Your task to perform on an android device: stop showing notifications on the lock screen Image 0: 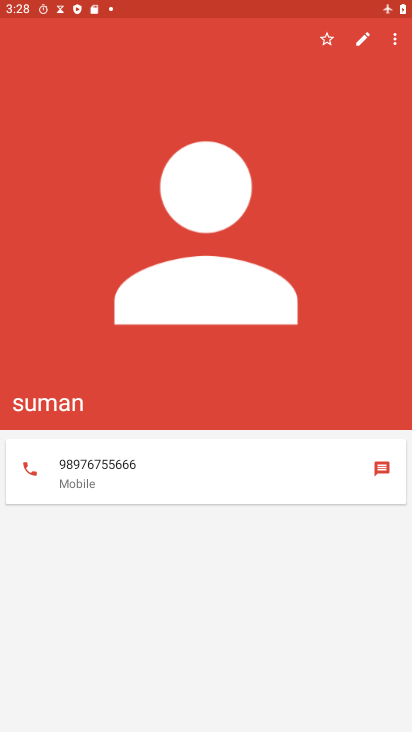
Step 0: press home button
Your task to perform on an android device: stop showing notifications on the lock screen Image 1: 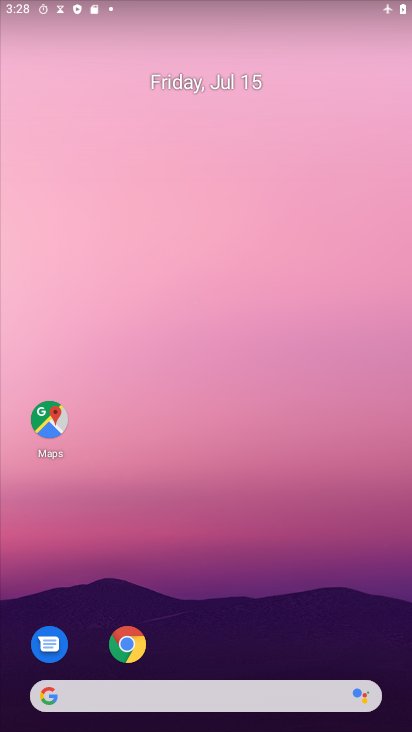
Step 1: drag from (84, 557) to (135, 3)
Your task to perform on an android device: stop showing notifications on the lock screen Image 2: 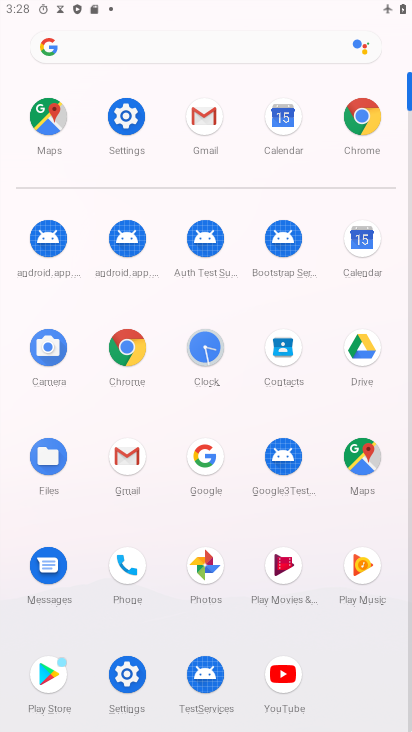
Step 2: click (122, 113)
Your task to perform on an android device: stop showing notifications on the lock screen Image 3: 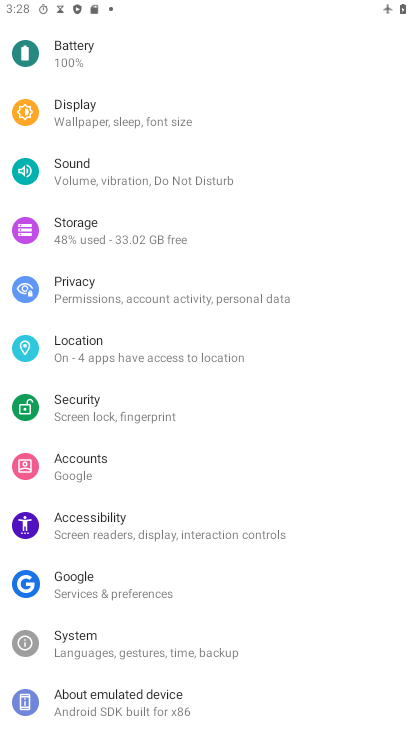
Step 3: drag from (121, 170) to (137, 608)
Your task to perform on an android device: stop showing notifications on the lock screen Image 4: 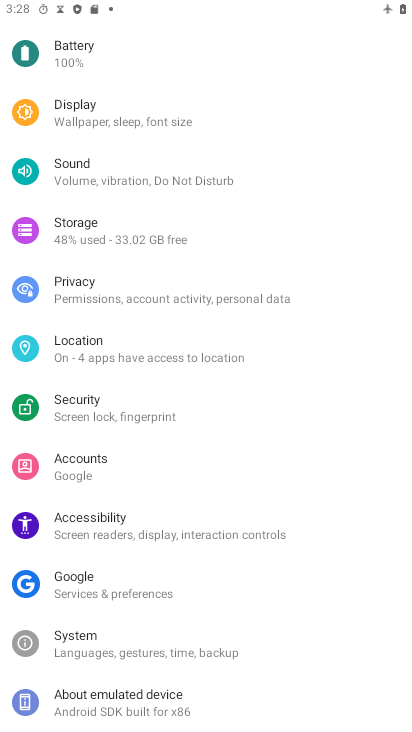
Step 4: drag from (115, 154) to (188, 654)
Your task to perform on an android device: stop showing notifications on the lock screen Image 5: 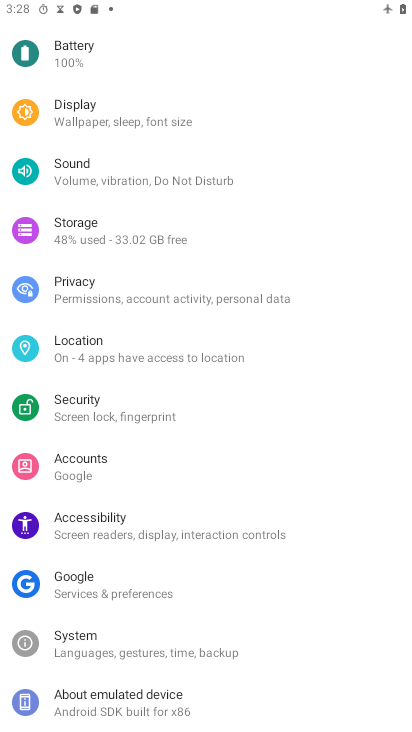
Step 5: drag from (139, 147) to (157, 654)
Your task to perform on an android device: stop showing notifications on the lock screen Image 6: 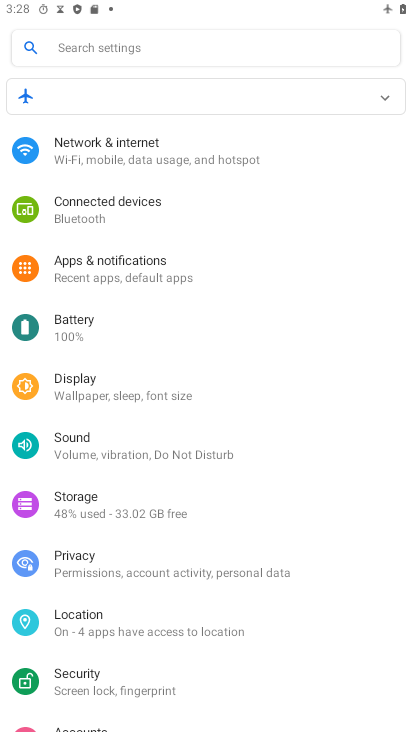
Step 6: click (125, 268)
Your task to perform on an android device: stop showing notifications on the lock screen Image 7: 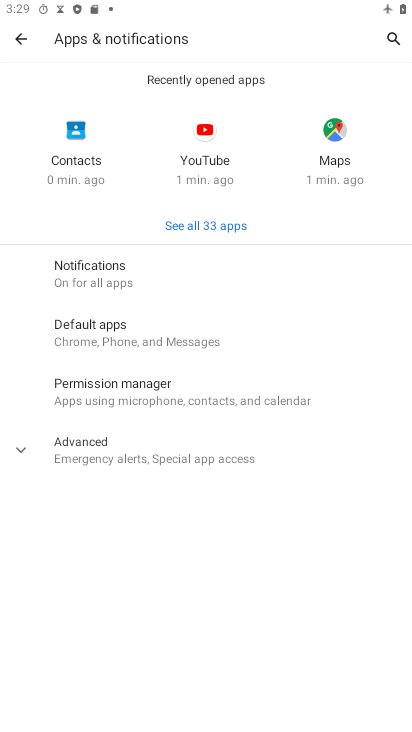
Step 7: click (159, 274)
Your task to perform on an android device: stop showing notifications on the lock screen Image 8: 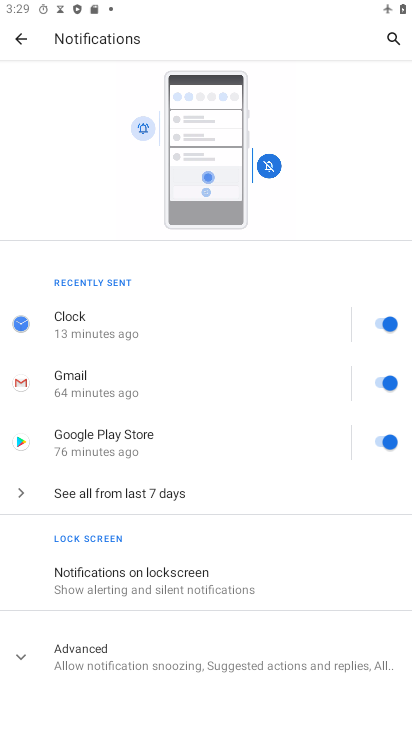
Step 8: click (154, 591)
Your task to perform on an android device: stop showing notifications on the lock screen Image 9: 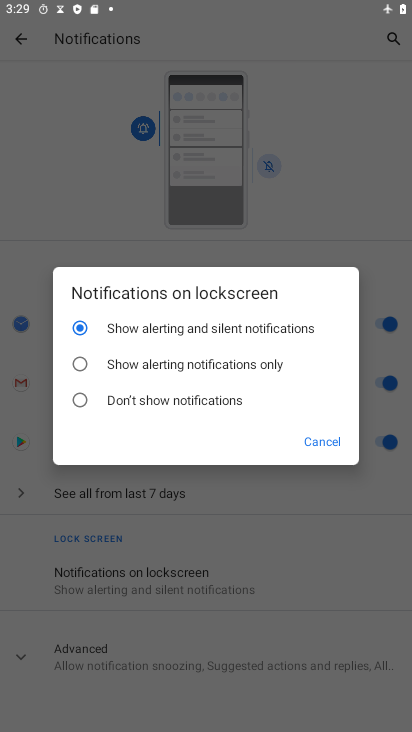
Step 9: click (80, 403)
Your task to perform on an android device: stop showing notifications on the lock screen Image 10: 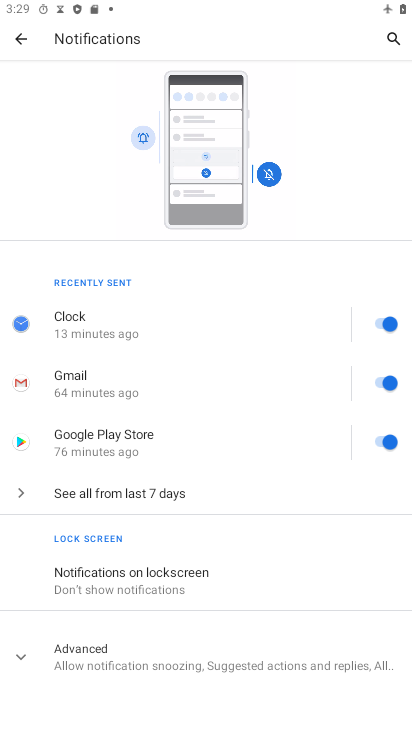
Step 10: task complete